Your task to perform on an android device: Go to Yahoo.com Image 0: 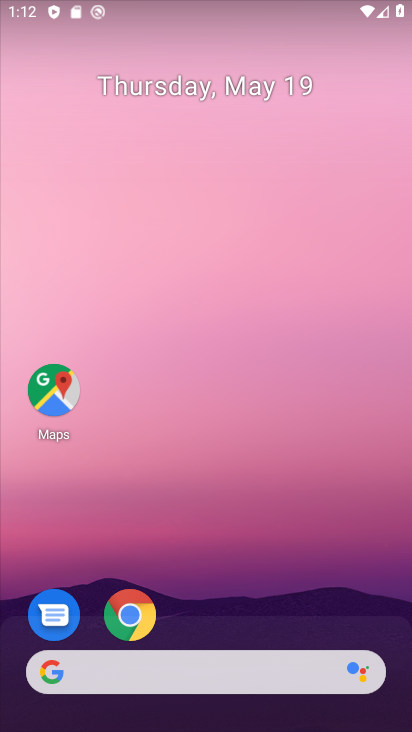
Step 0: click (130, 617)
Your task to perform on an android device: Go to Yahoo.com Image 1: 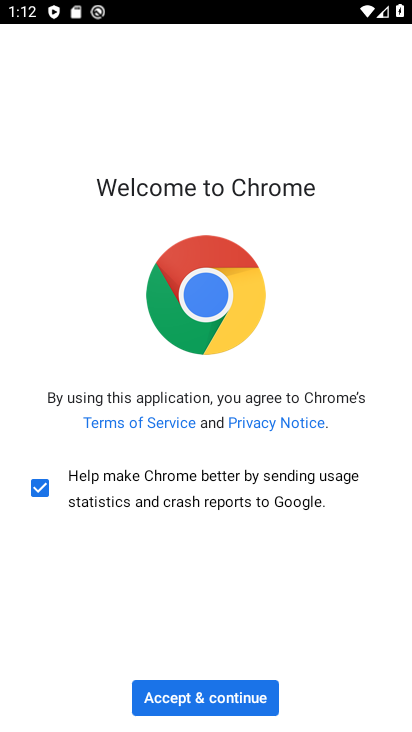
Step 1: click (207, 710)
Your task to perform on an android device: Go to Yahoo.com Image 2: 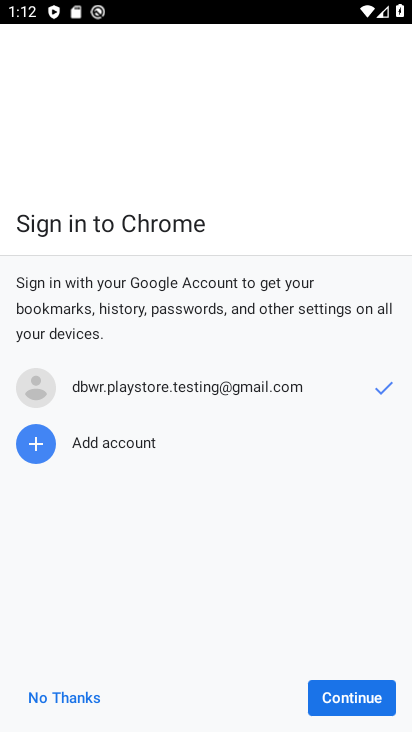
Step 2: click (338, 687)
Your task to perform on an android device: Go to Yahoo.com Image 3: 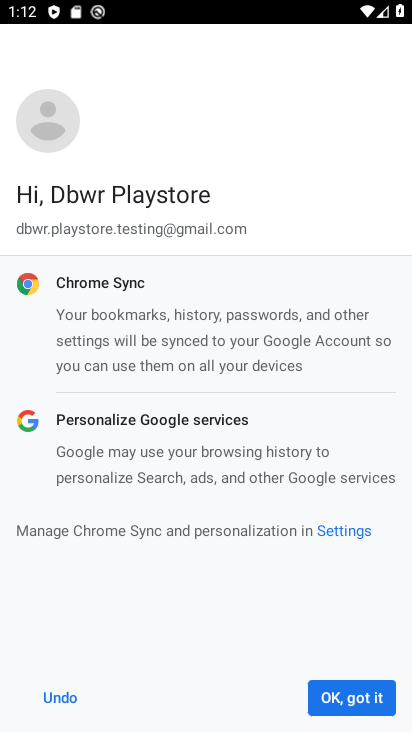
Step 3: click (339, 686)
Your task to perform on an android device: Go to Yahoo.com Image 4: 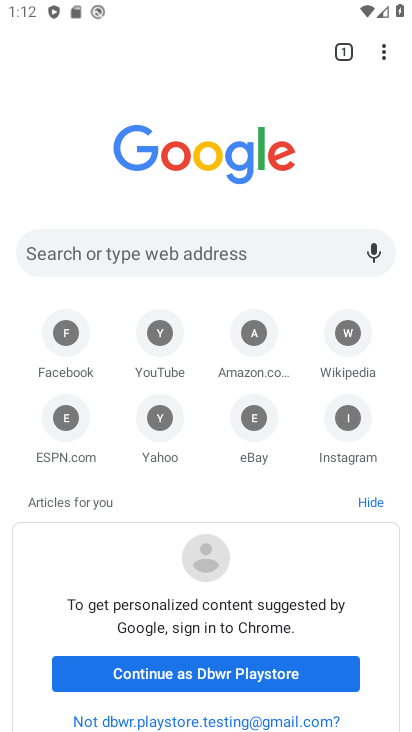
Step 4: click (219, 54)
Your task to perform on an android device: Go to Yahoo.com Image 5: 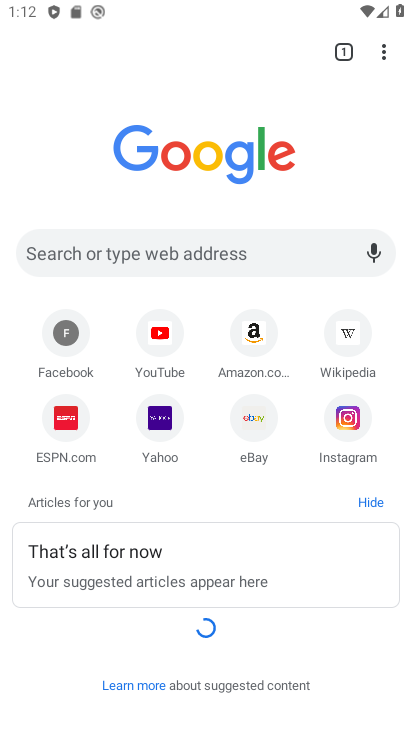
Step 5: click (162, 429)
Your task to perform on an android device: Go to Yahoo.com Image 6: 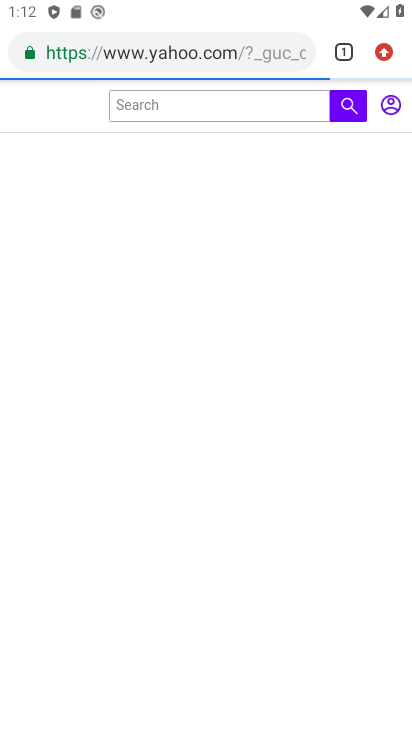
Step 6: task complete